Your task to perform on an android device: Turn on the flashlight Image 0: 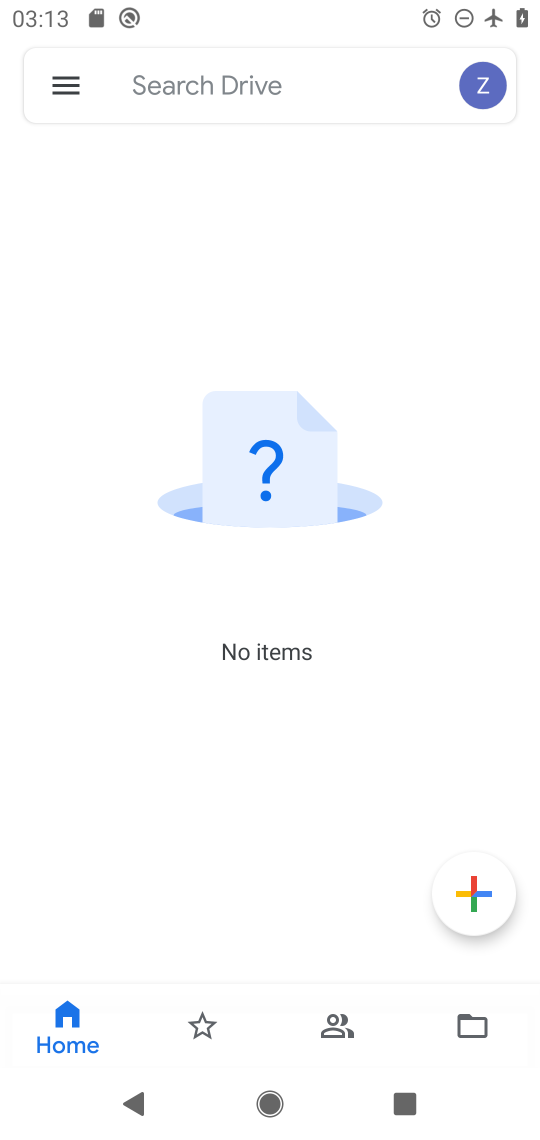
Step 0: press home button
Your task to perform on an android device: Turn on the flashlight Image 1: 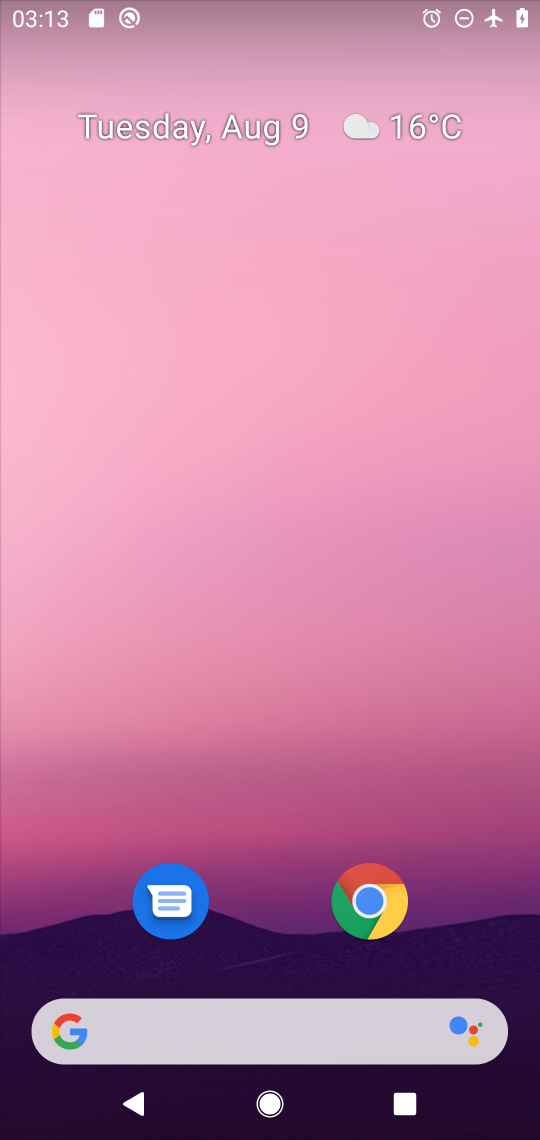
Step 1: drag from (292, 23) to (278, 829)
Your task to perform on an android device: Turn on the flashlight Image 2: 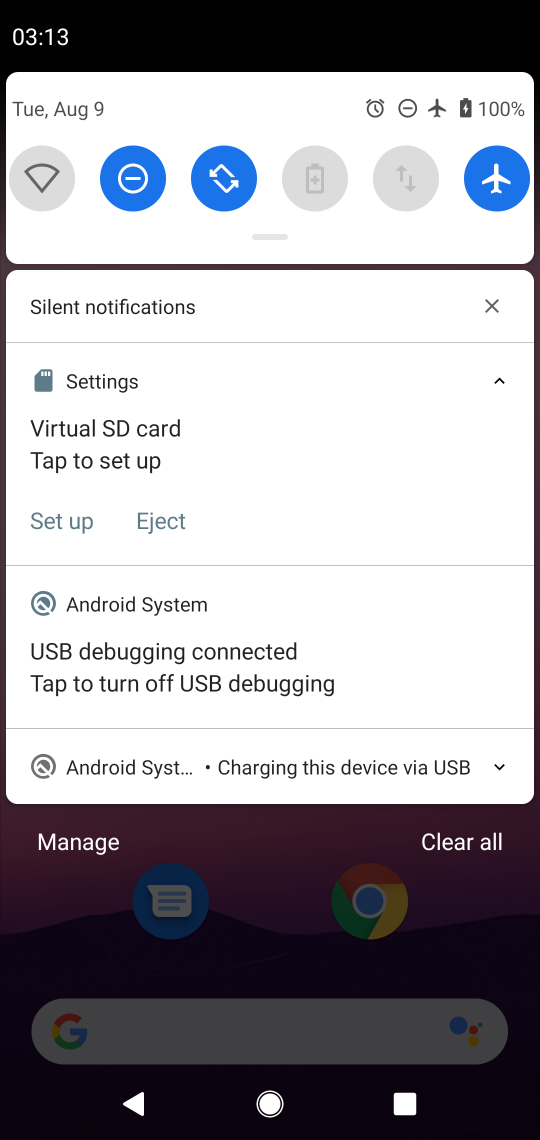
Step 2: drag from (263, 239) to (271, 568)
Your task to perform on an android device: Turn on the flashlight Image 3: 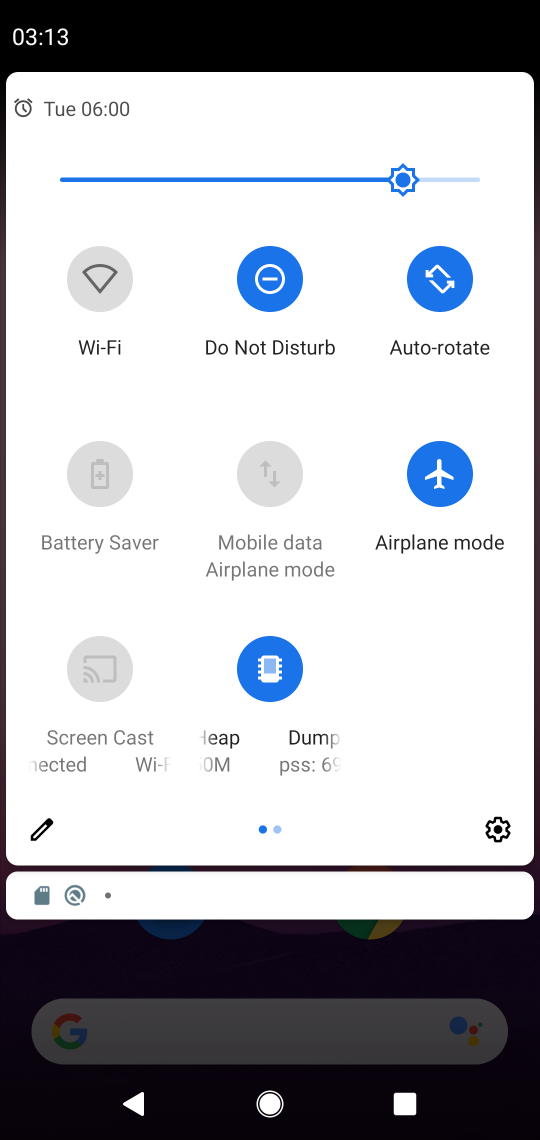
Step 3: click (37, 831)
Your task to perform on an android device: Turn on the flashlight Image 4: 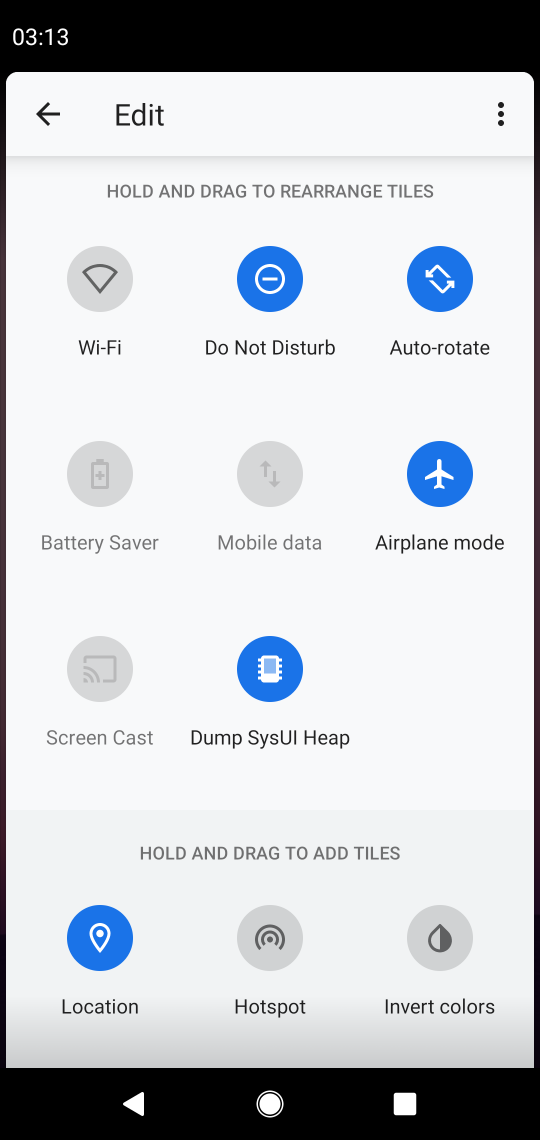
Step 4: task complete